Your task to perform on an android device: Open Yahoo.com Image 0: 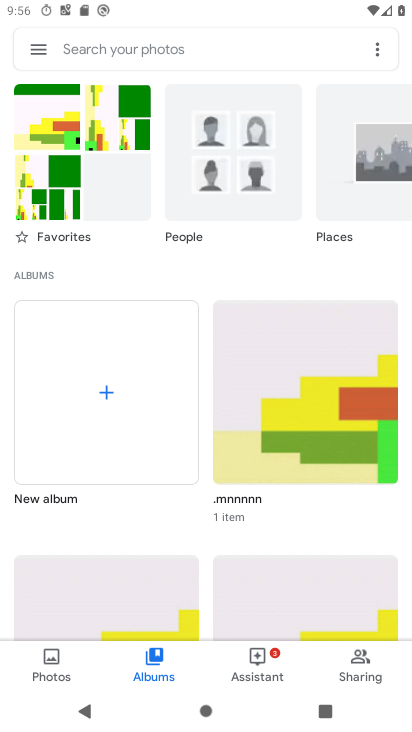
Step 0: press home button
Your task to perform on an android device: Open Yahoo.com Image 1: 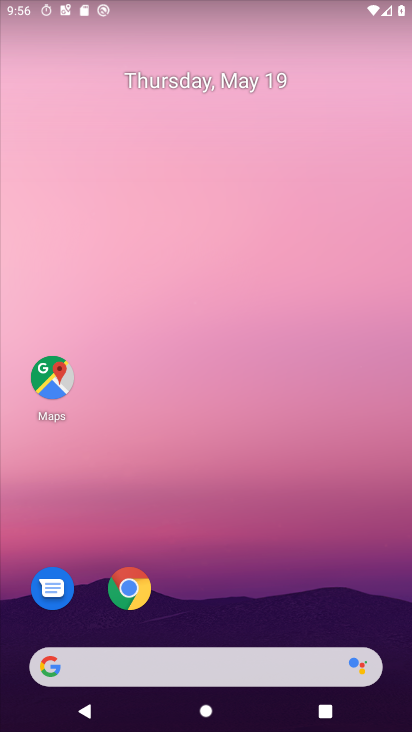
Step 1: click (134, 595)
Your task to perform on an android device: Open Yahoo.com Image 2: 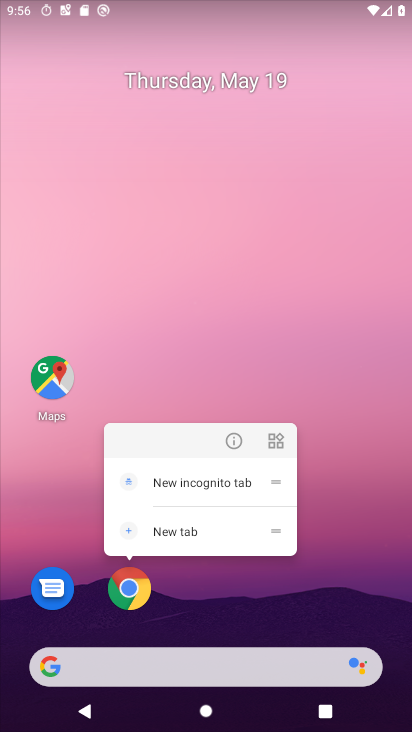
Step 2: click (136, 587)
Your task to perform on an android device: Open Yahoo.com Image 3: 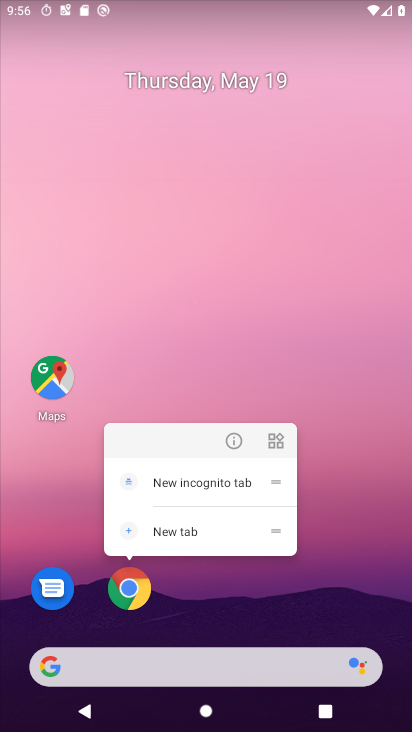
Step 3: click (130, 592)
Your task to perform on an android device: Open Yahoo.com Image 4: 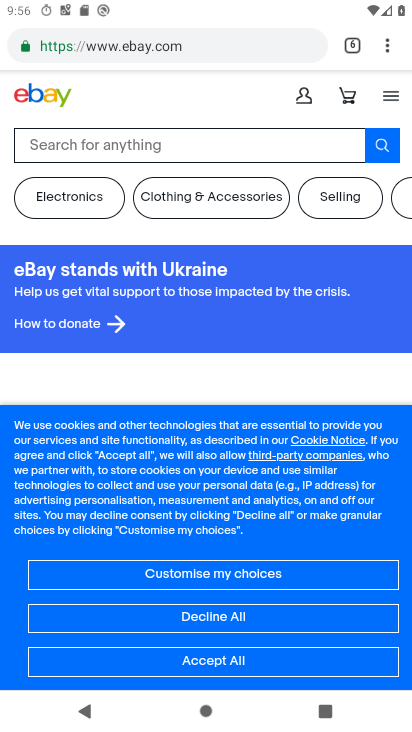
Step 4: drag from (386, 48) to (325, 92)
Your task to perform on an android device: Open Yahoo.com Image 5: 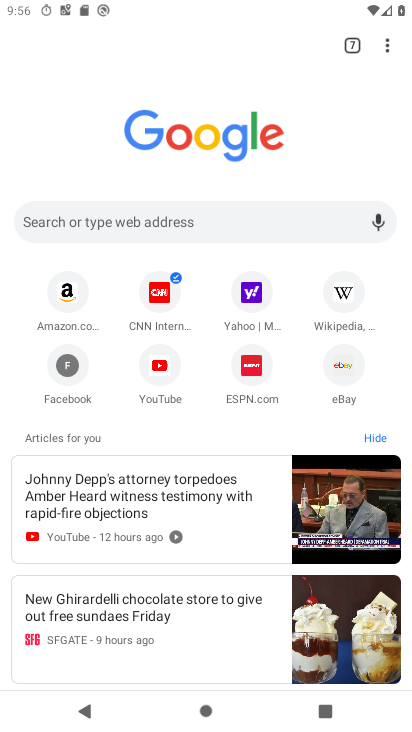
Step 5: click (247, 288)
Your task to perform on an android device: Open Yahoo.com Image 6: 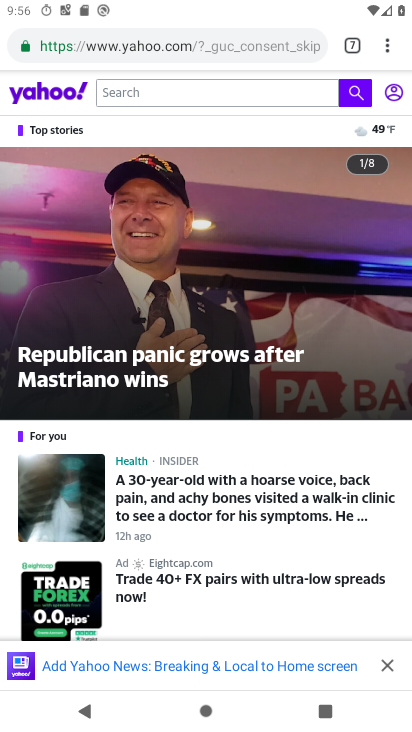
Step 6: task complete